Your task to perform on an android device: Show me recent news Image 0: 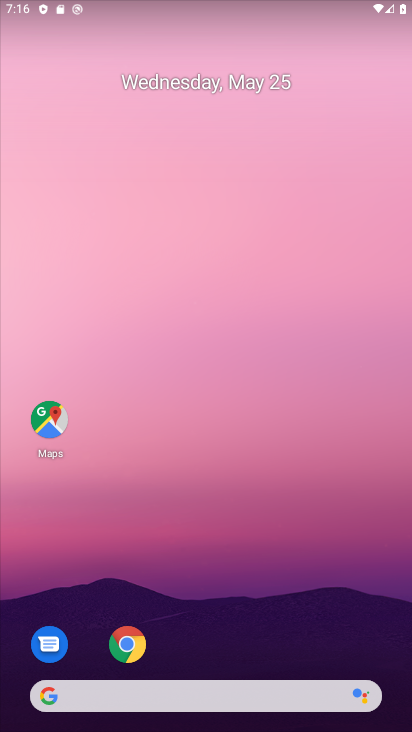
Step 0: drag from (22, 308) to (322, 268)
Your task to perform on an android device: Show me recent news Image 1: 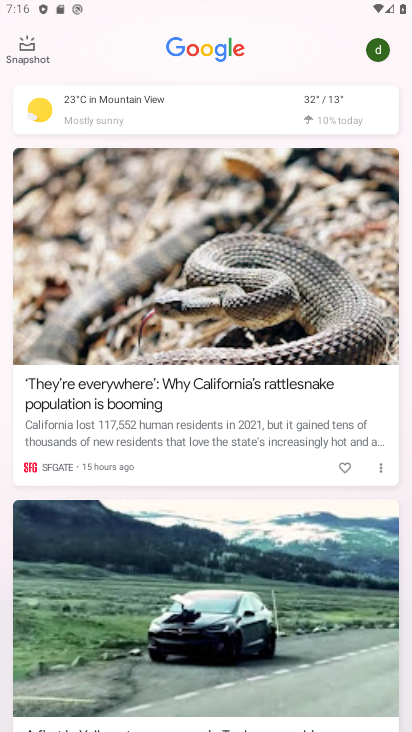
Step 1: task complete